Your task to perform on an android device: find which apps use the phone's location Image 0: 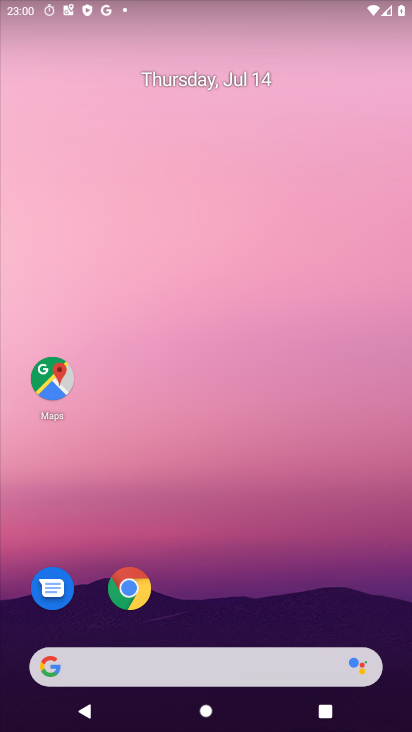
Step 0: drag from (231, 599) to (258, 166)
Your task to perform on an android device: find which apps use the phone's location Image 1: 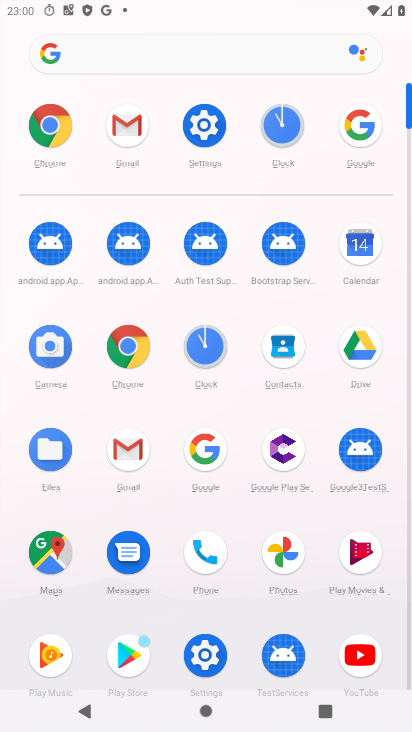
Step 1: click (207, 125)
Your task to perform on an android device: find which apps use the phone's location Image 2: 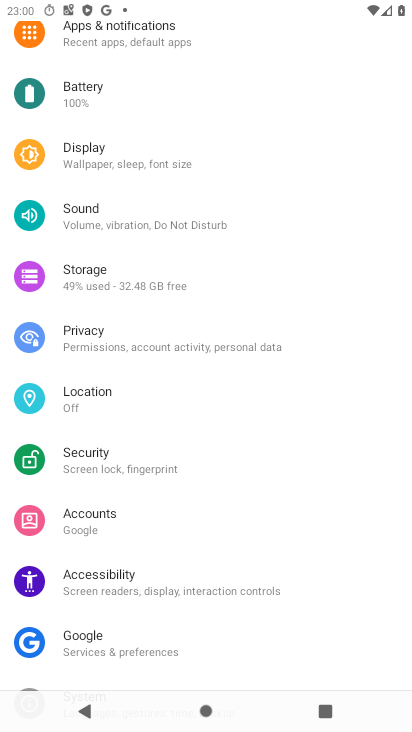
Step 2: click (89, 403)
Your task to perform on an android device: find which apps use the phone's location Image 3: 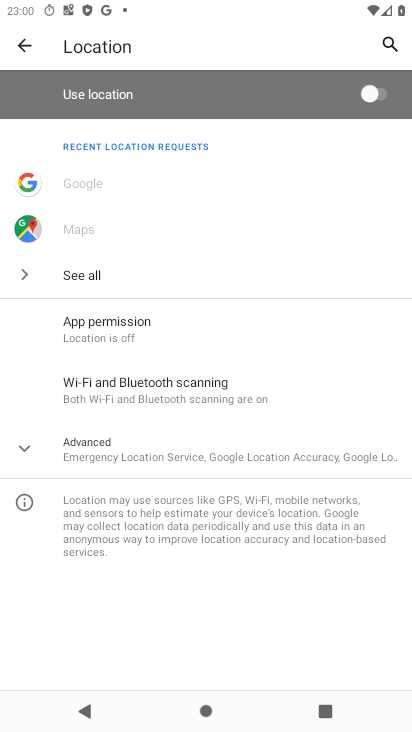
Step 3: click (134, 338)
Your task to perform on an android device: find which apps use the phone's location Image 4: 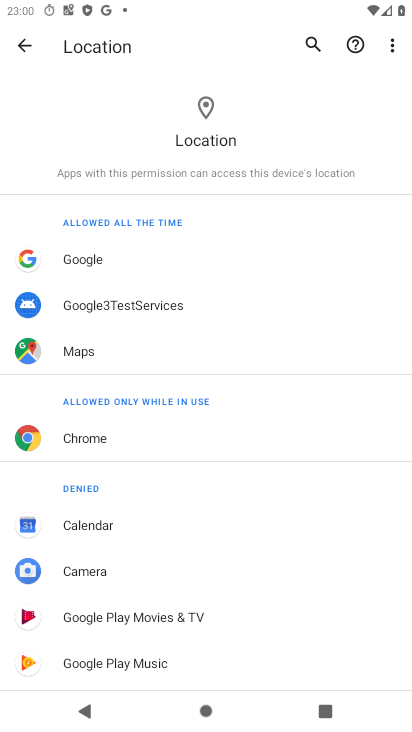
Step 4: task complete